Your task to perform on an android device: uninstall "Pluto TV - Live TV and Movies" Image 0: 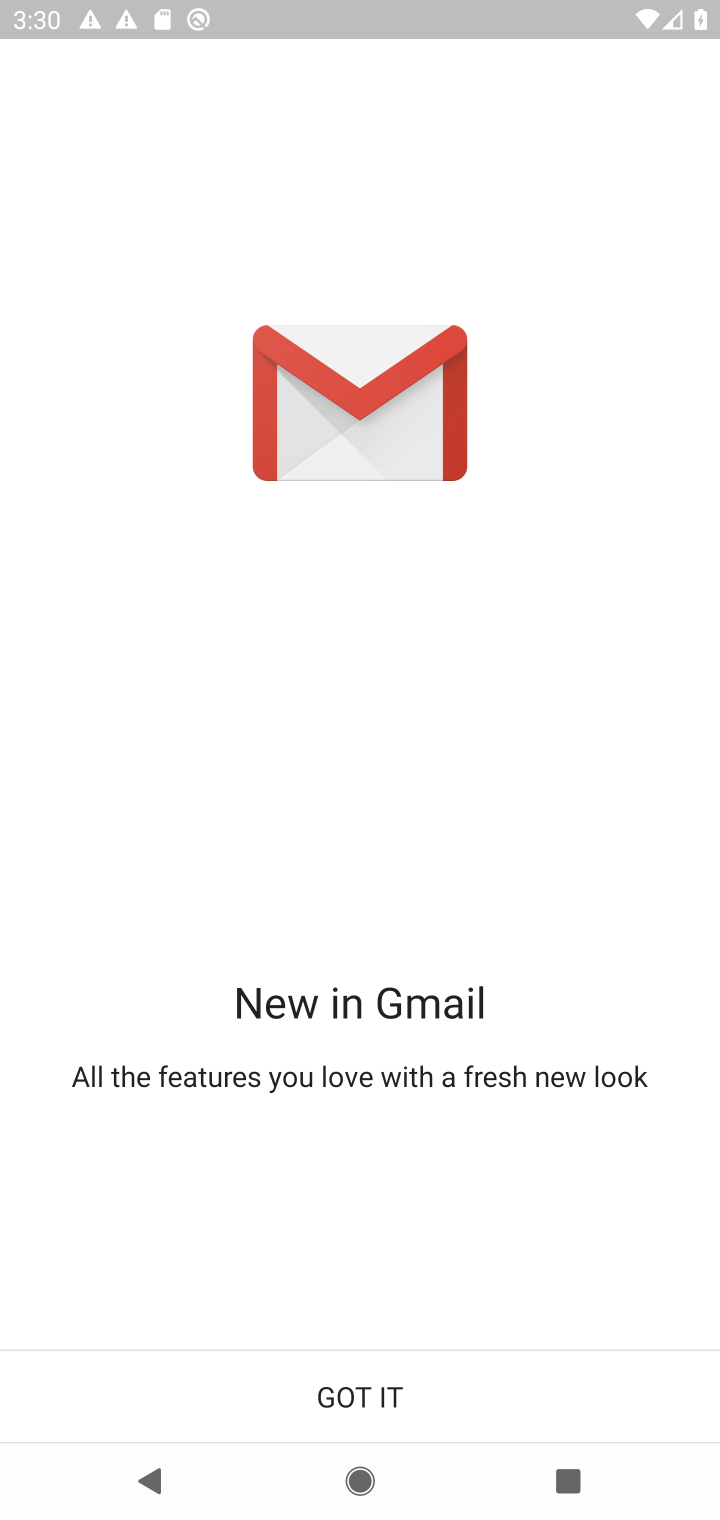
Step 0: press home button
Your task to perform on an android device: uninstall "Pluto TV - Live TV and Movies" Image 1: 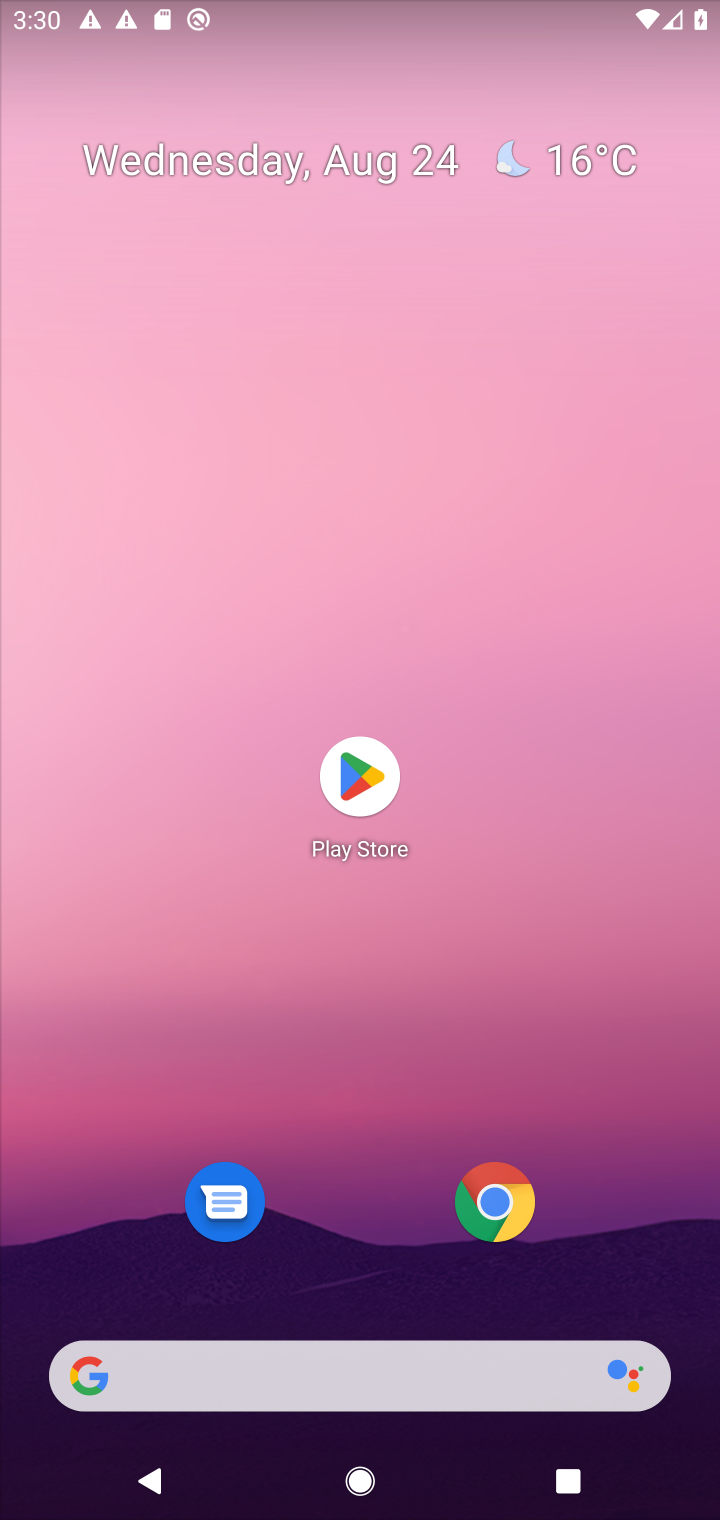
Step 1: click (367, 777)
Your task to perform on an android device: uninstall "Pluto TV - Live TV and Movies" Image 2: 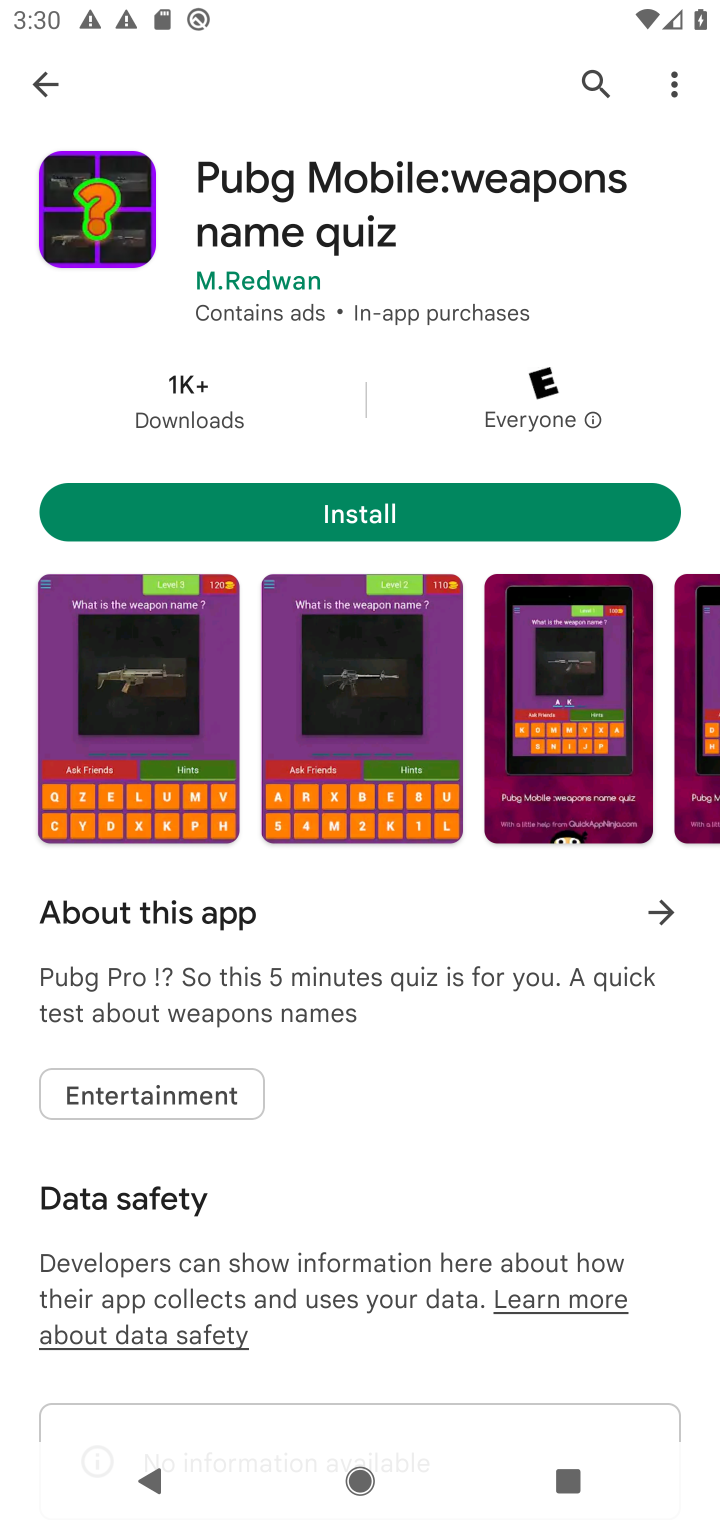
Step 2: click (593, 86)
Your task to perform on an android device: uninstall "Pluto TV - Live TV and Movies" Image 3: 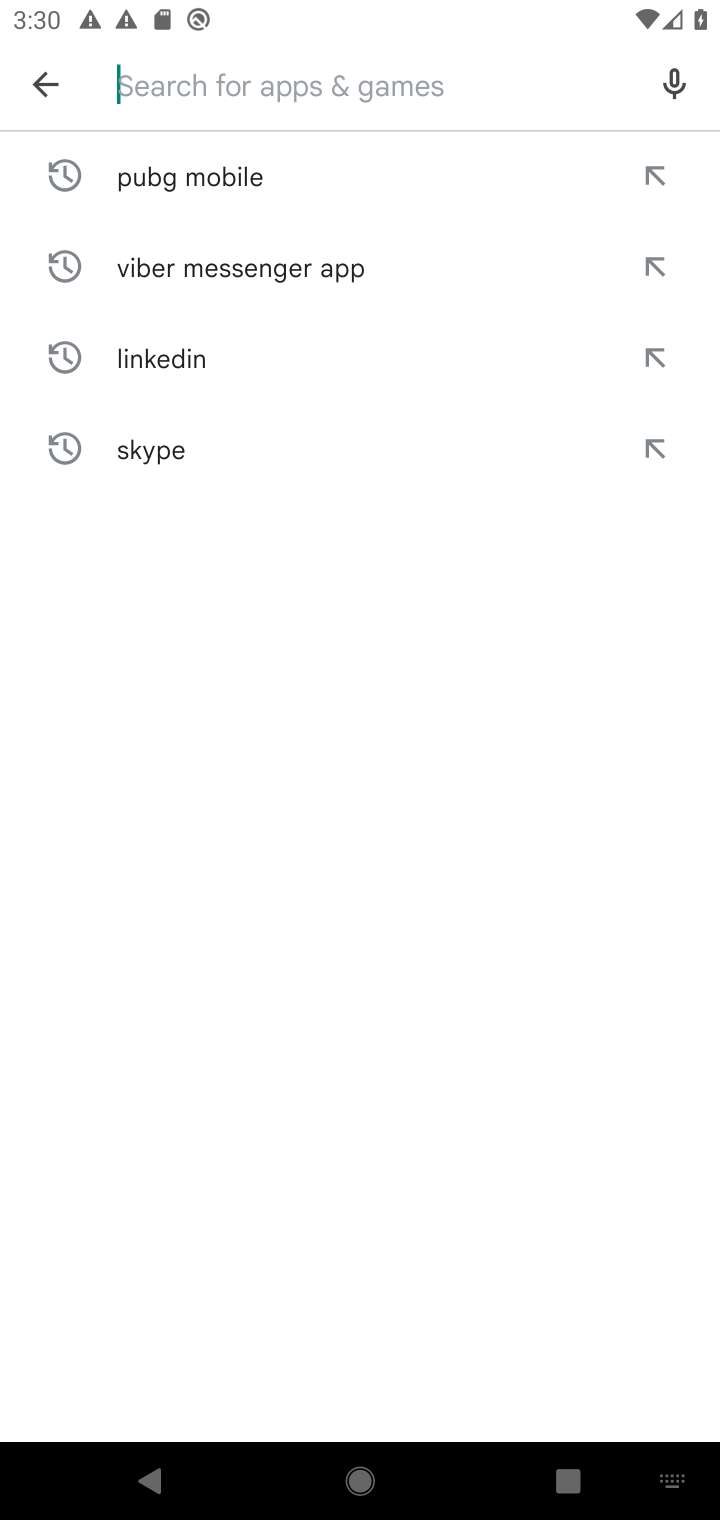
Step 3: type "Pluto TV - Live TV and Movies"
Your task to perform on an android device: uninstall "Pluto TV - Live TV and Movies" Image 4: 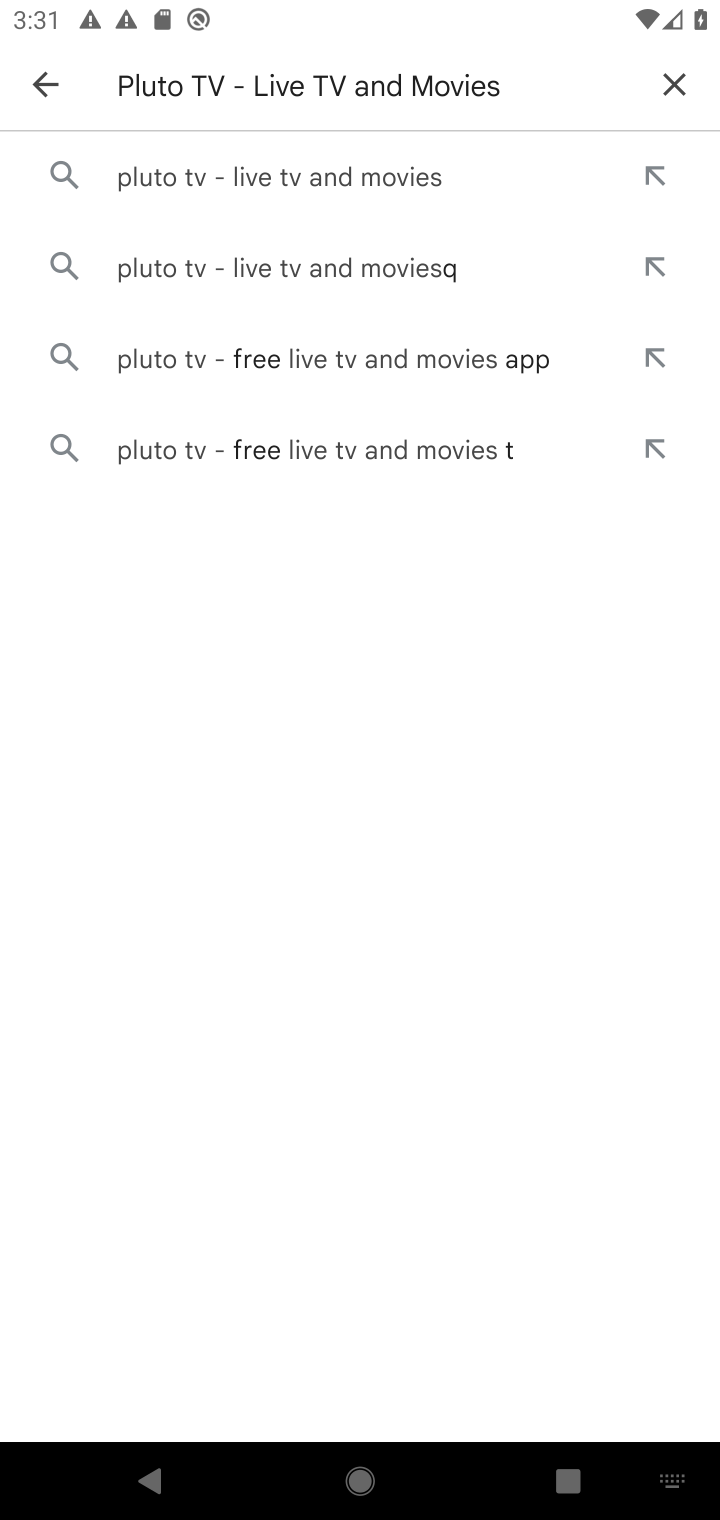
Step 4: click (304, 180)
Your task to perform on an android device: uninstall "Pluto TV - Live TV and Movies" Image 5: 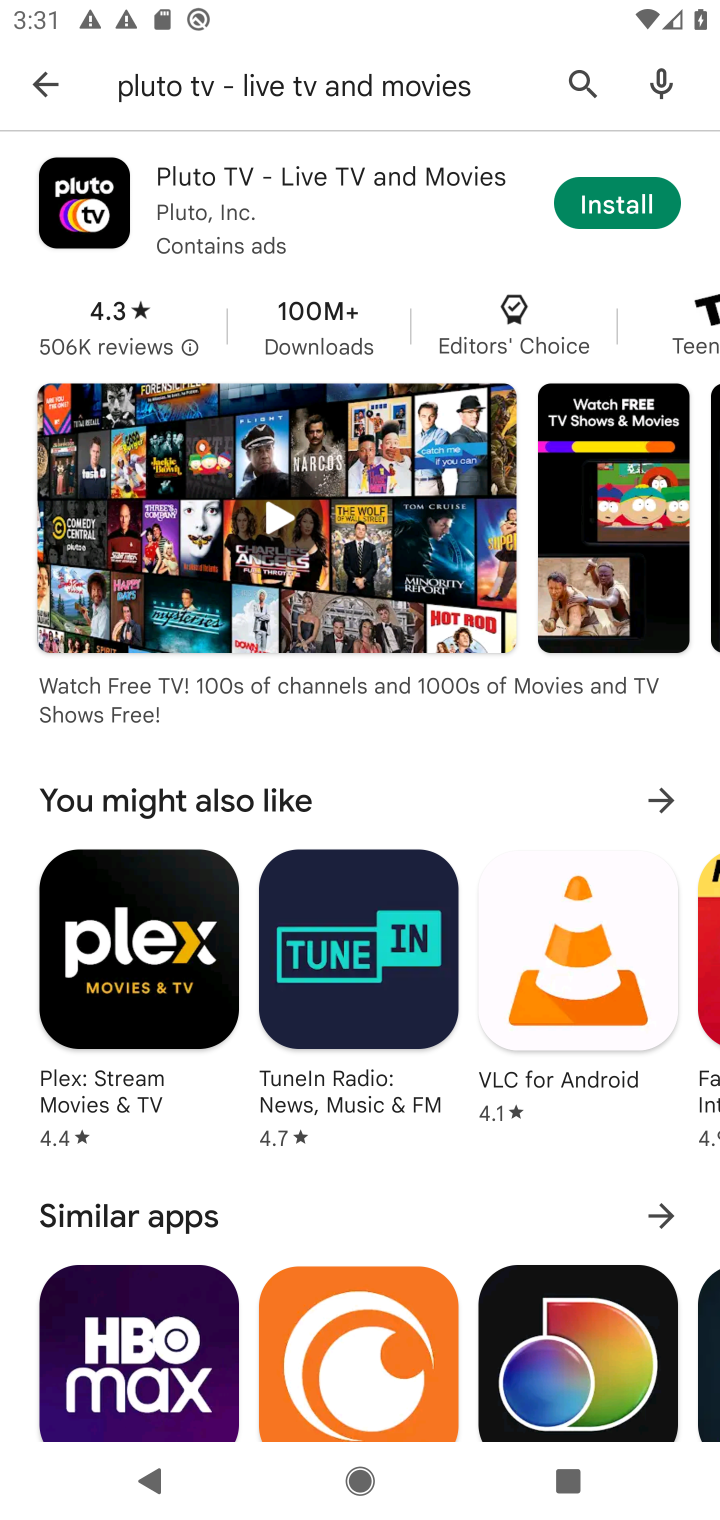
Step 5: task complete